Your task to perform on an android device: open chrome privacy settings Image 0: 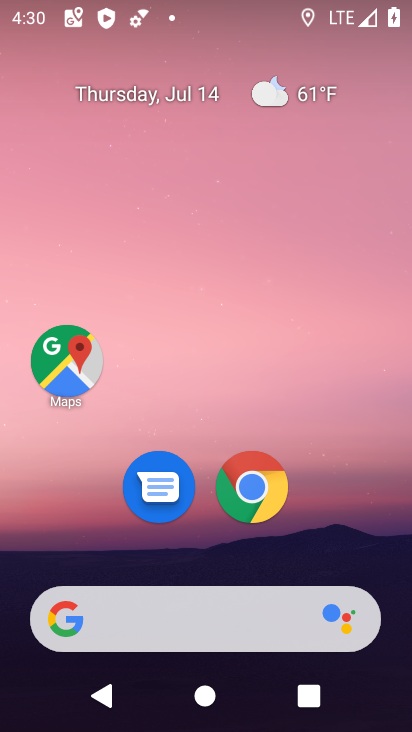
Step 0: click (268, 496)
Your task to perform on an android device: open chrome privacy settings Image 1: 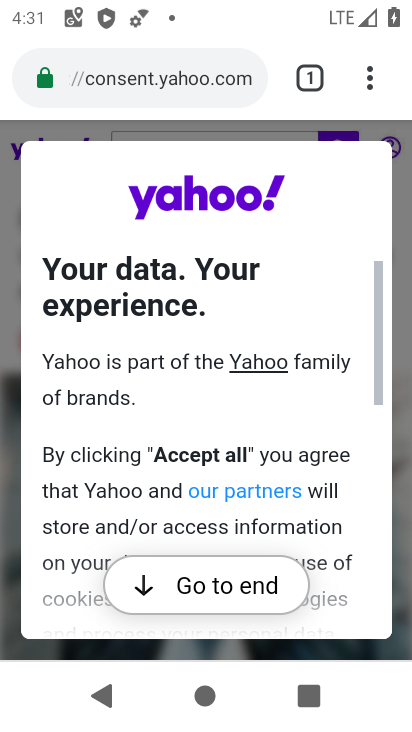
Step 1: click (361, 82)
Your task to perform on an android device: open chrome privacy settings Image 2: 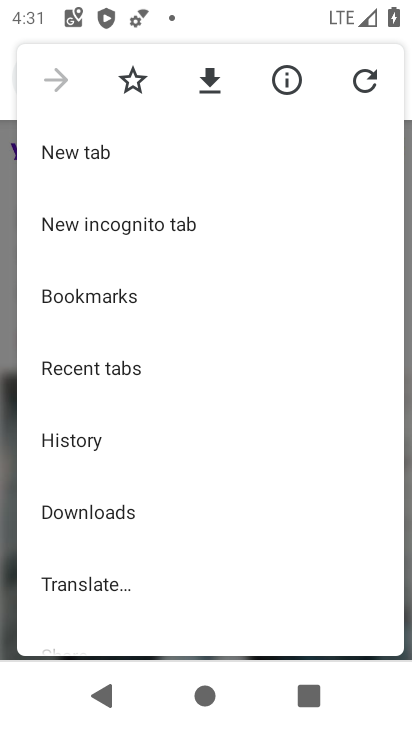
Step 2: drag from (170, 541) to (190, 209)
Your task to perform on an android device: open chrome privacy settings Image 3: 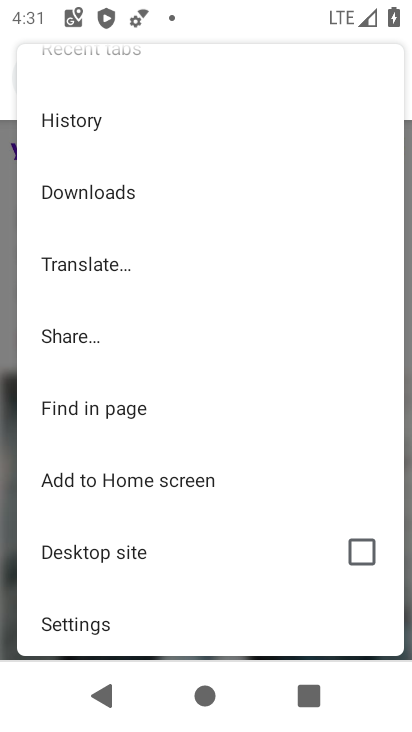
Step 3: drag from (150, 604) to (102, 216)
Your task to perform on an android device: open chrome privacy settings Image 4: 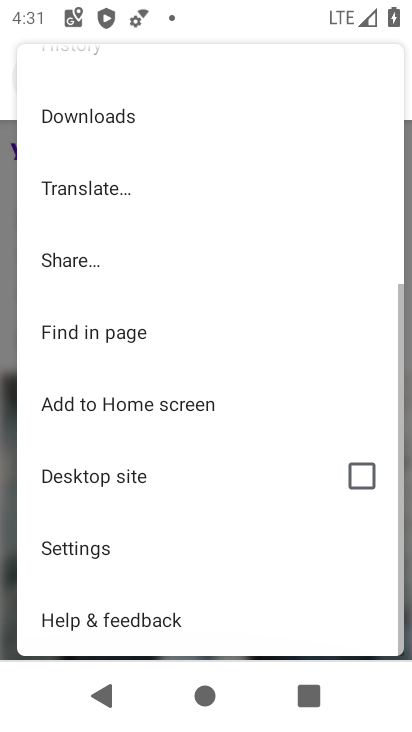
Step 4: click (95, 536)
Your task to perform on an android device: open chrome privacy settings Image 5: 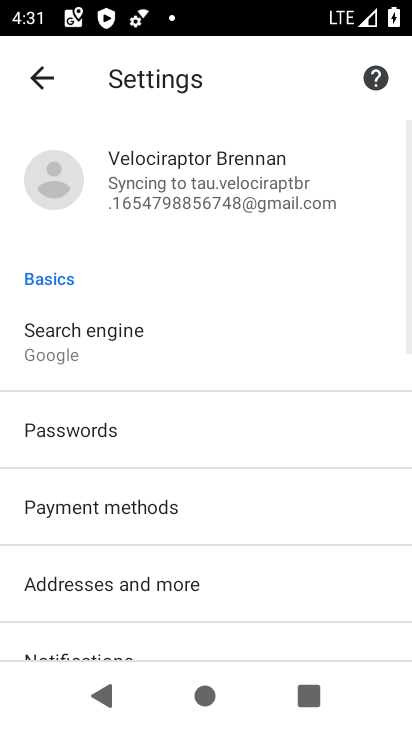
Step 5: drag from (164, 621) to (169, 190)
Your task to perform on an android device: open chrome privacy settings Image 6: 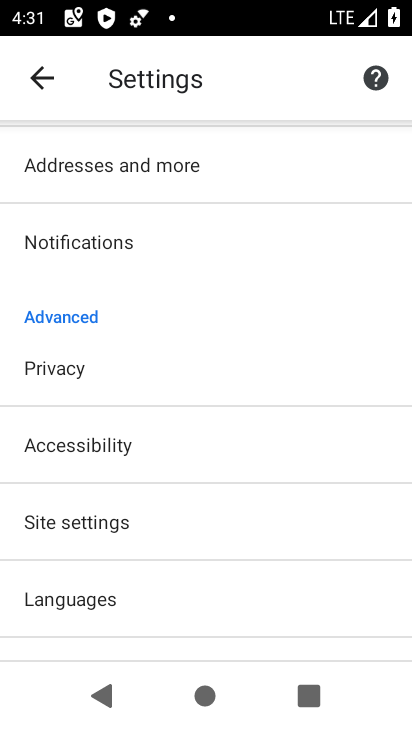
Step 6: click (176, 378)
Your task to perform on an android device: open chrome privacy settings Image 7: 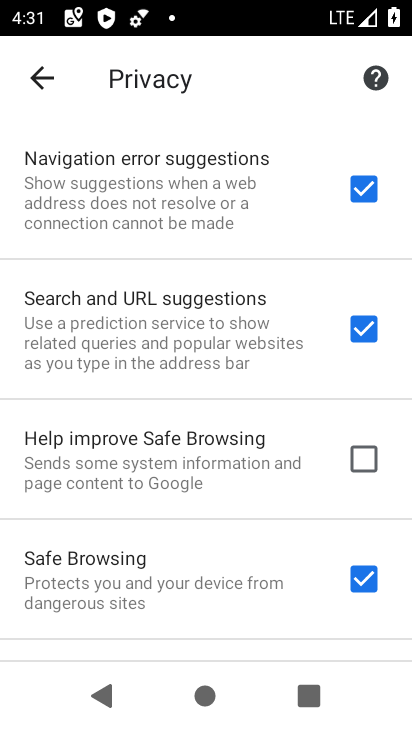
Step 7: task complete